Your task to perform on an android device: change the clock display to digital Image 0: 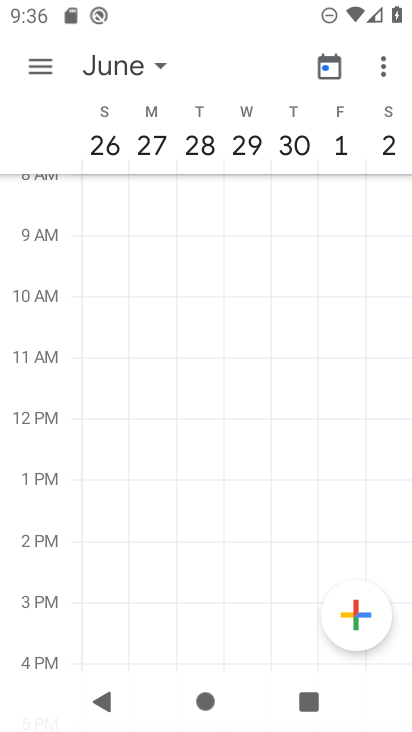
Step 0: press home button
Your task to perform on an android device: change the clock display to digital Image 1: 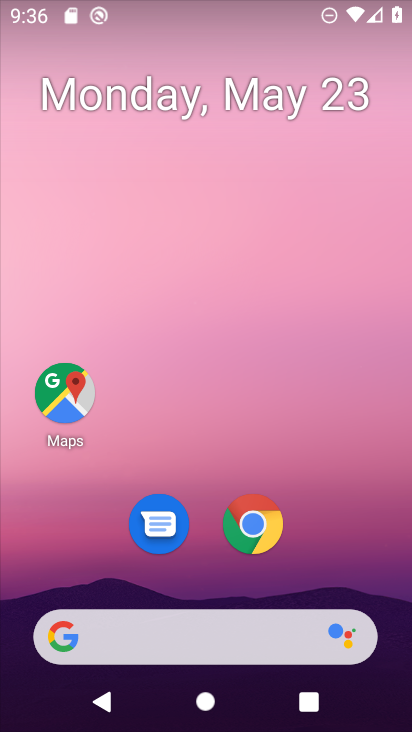
Step 1: drag from (214, 463) to (272, 9)
Your task to perform on an android device: change the clock display to digital Image 2: 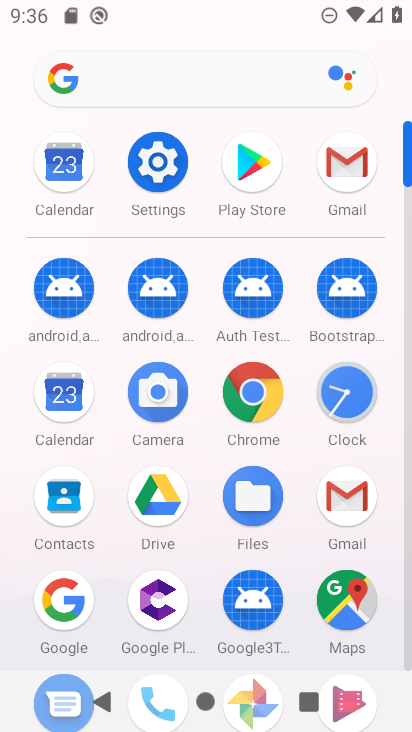
Step 2: click (342, 390)
Your task to perform on an android device: change the clock display to digital Image 3: 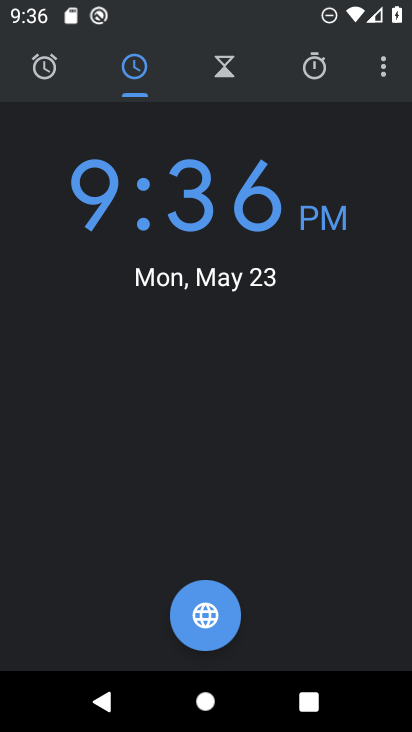
Step 3: task complete